Your task to perform on an android device: open app "YouTube Kids" (install if not already installed) Image 0: 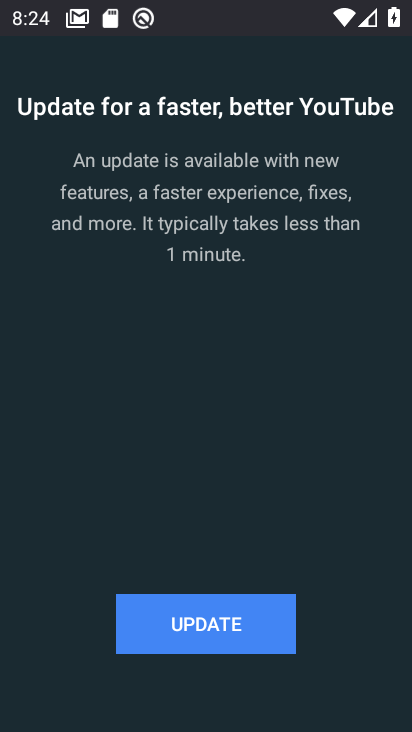
Step 0: press home button
Your task to perform on an android device: open app "YouTube Kids" (install if not already installed) Image 1: 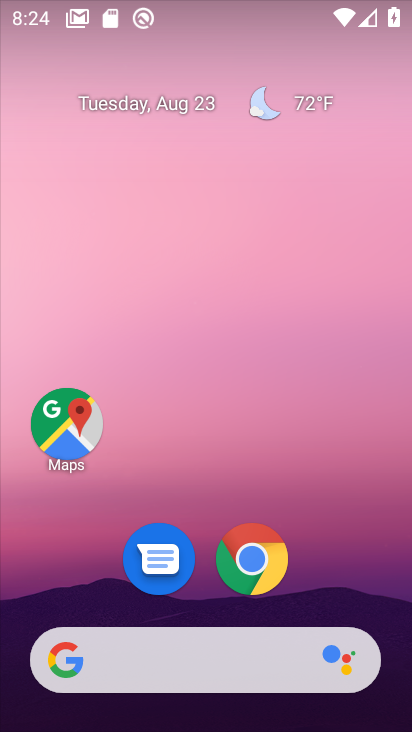
Step 1: drag from (194, 504) to (227, 127)
Your task to perform on an android device: open app "YouTube Kids" (install if not already installed) Image 2: 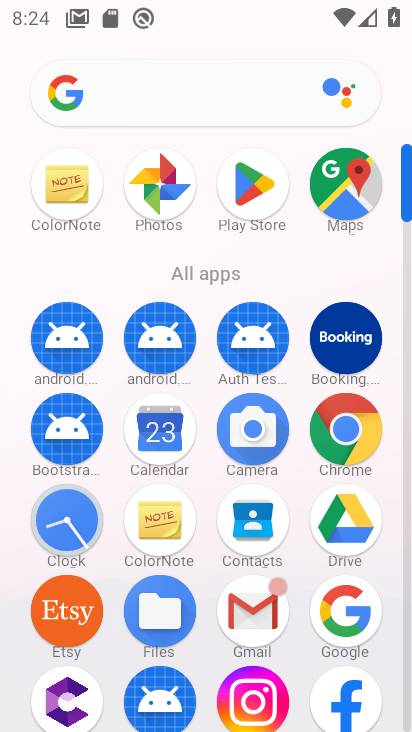
Step 2: click (249, 187)
Your task to perform on an android device: open app "YouTube Kids" (install if not already installed) Image 3: 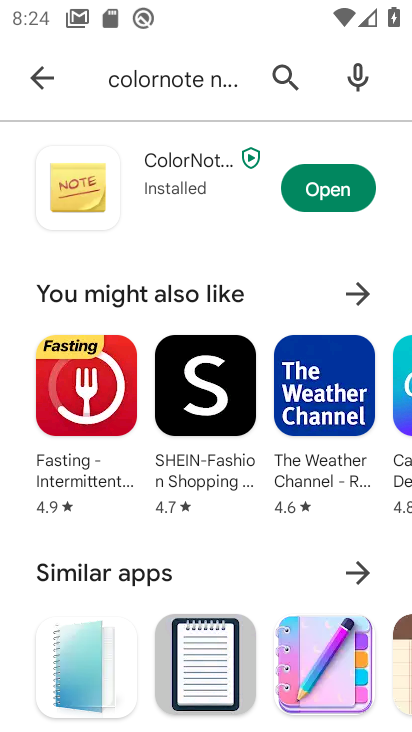
Step 3: click (288, 69)
Your task to perform on an android device: open app "YouTube Kids" (install if not already installed) Image 4: 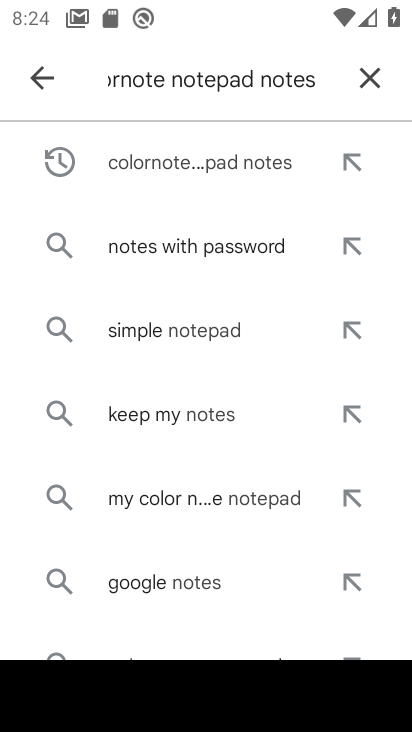
Step 4: click (362, 70)
Your task to perform on an android device: open app "YouTube Kids" (install if not already installed) Image 5: 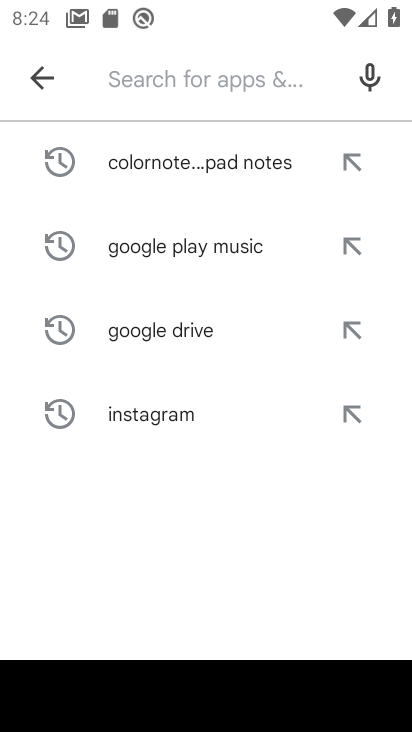
Step 5: type "YouTube Kids"
Your task to perform on an android device: open app "YouTube Kids" (install if not already installed) Image 6: 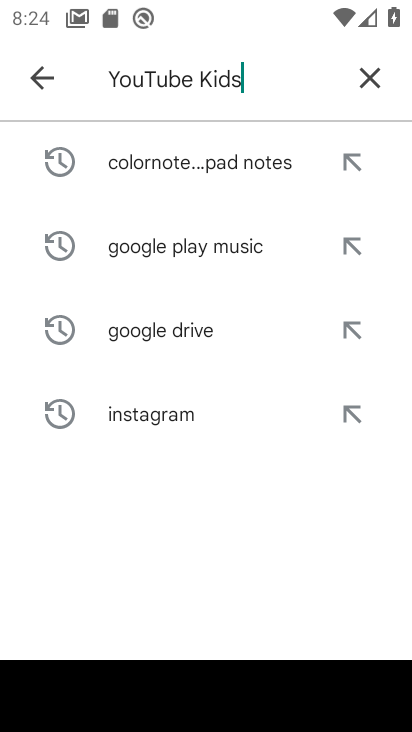
Step 6: type ""
Your task to perform on an android device: open app "YouTube Kids" (install if not already installed) Image 7: 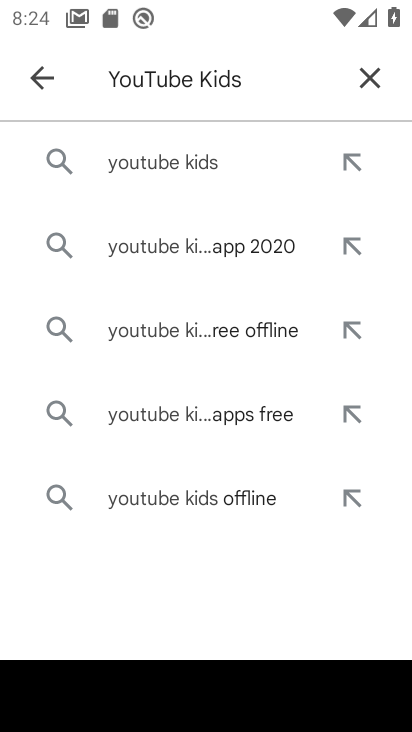
Step 7: click (222, 155)
Your task to perform on an android device: open app "YouTube Kids" (install if not already installed) Image 8: 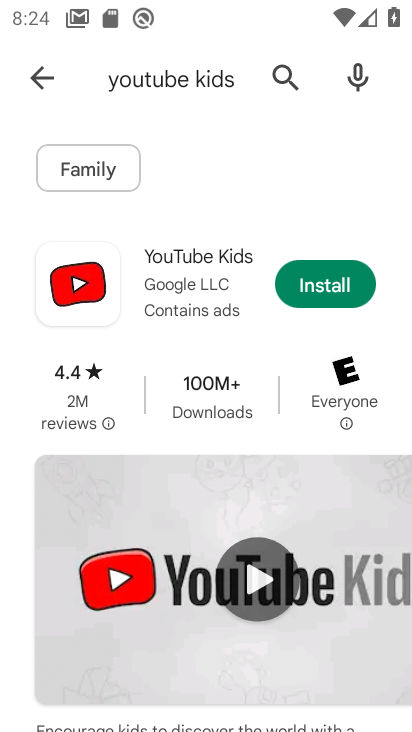
Step 8: click (314, 301)
Your task to perform on an android device: open app "YouTube Kids" (install if not already installed) Image 9: 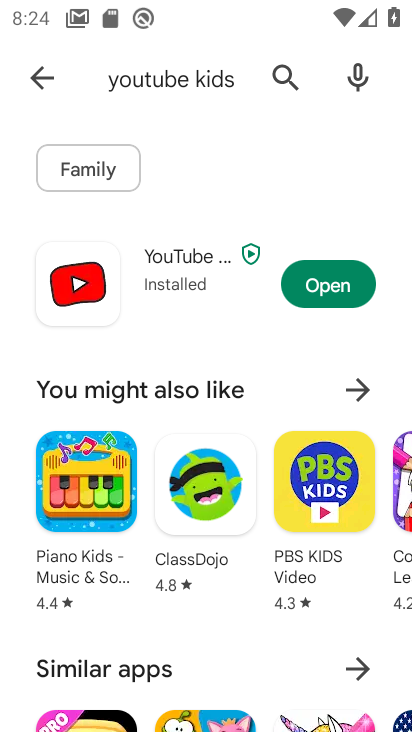
Step 9: click (313, 283)
Your task to perform on an android device: open app "YouTube Kids" (install if not already installed) Image 10: 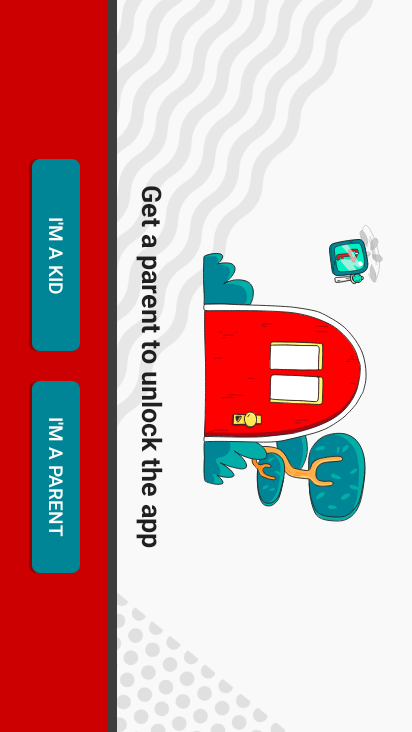
Step 10: task complete